Your task to perform on an android device: change notification settings in the gmail app Image 0: 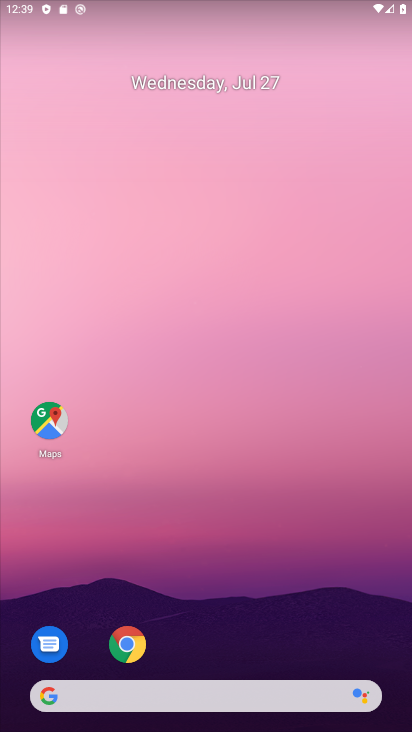
Step 0: drag from (223, 665) to (249, 52)
Your task to perform on an android device: change notification settings in the gmail app Image 1: 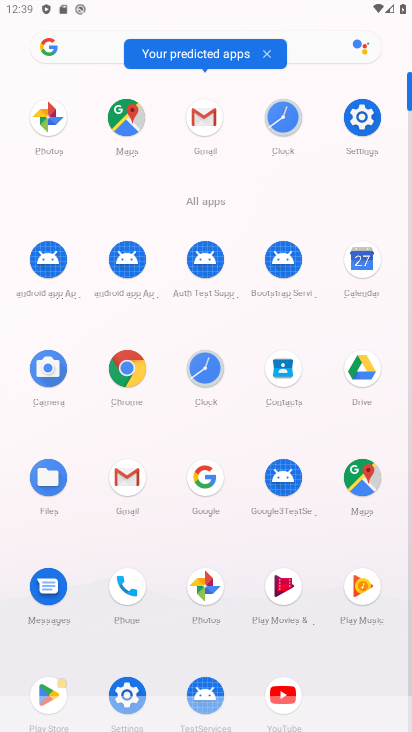
Step 1: click (199, 123)
Your task to perform on an android device: change notification settings in the gmail app Image 2: 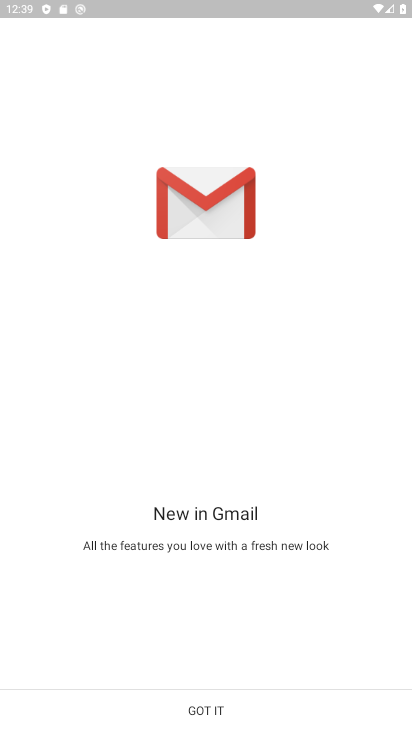
Step 2: click (209, 715)
Your task to perform on an android device: change notification settings in the gmail app Image 3: 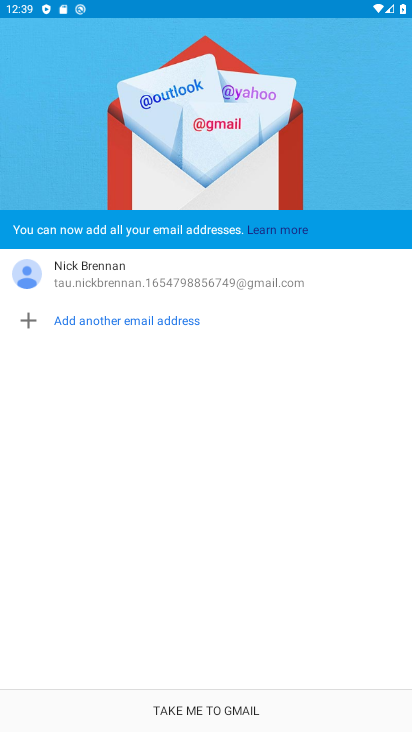
Step 3: click (181, 706)
Your task to perform on an android device: change notification settings in the gmail app Image 4: 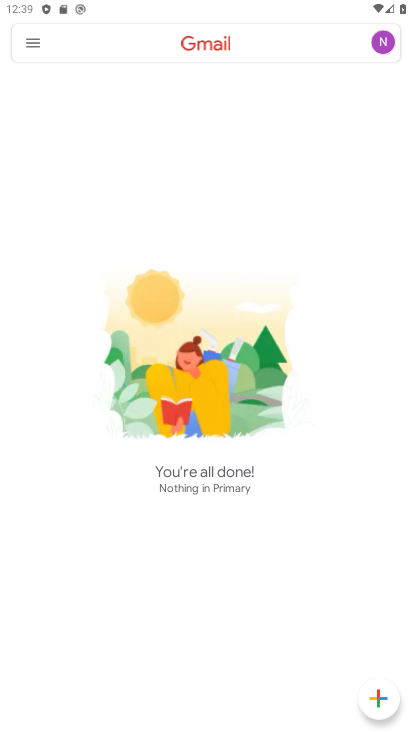
Step 4: click (29, 45)
Your task to perform on an android device: change notification settings in the gmail app Image 5: 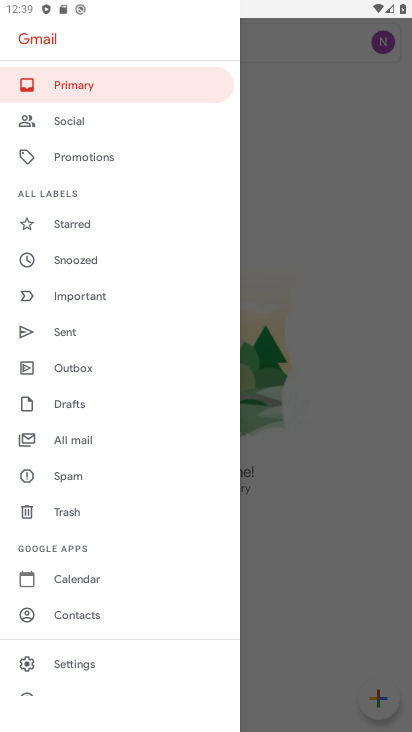
Step 5: click (85, 670)
Your task to perform on an android device: change notification settings in the gmail app Image 6: 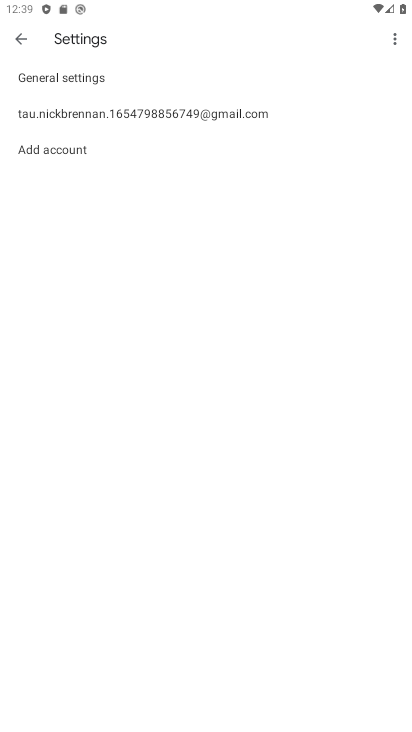
Step 6: click (60, 116)
Your task to perform on an android device: change notification settings in the gmail app Image 7: 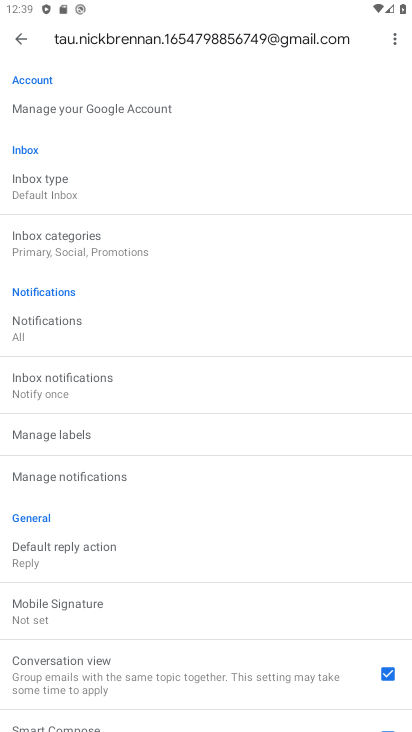
Step 7: click (40, 317)
Your task to perform on an android device: change notification settings in the gmail app Image 8: 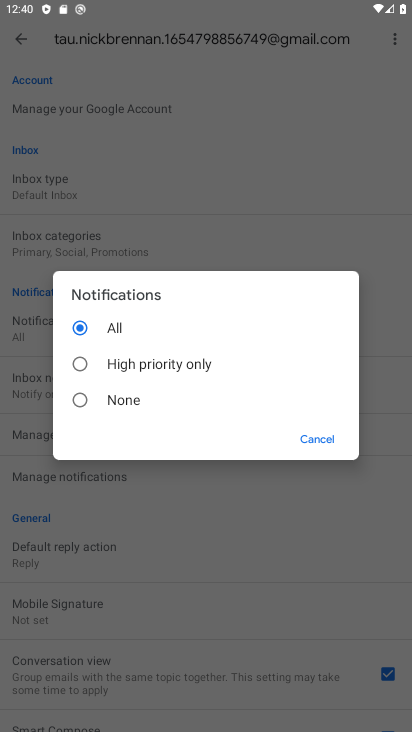
Step 8: click (111, 372)
Your task to perform on an android device: change notification settings in the gmail app Image 9: 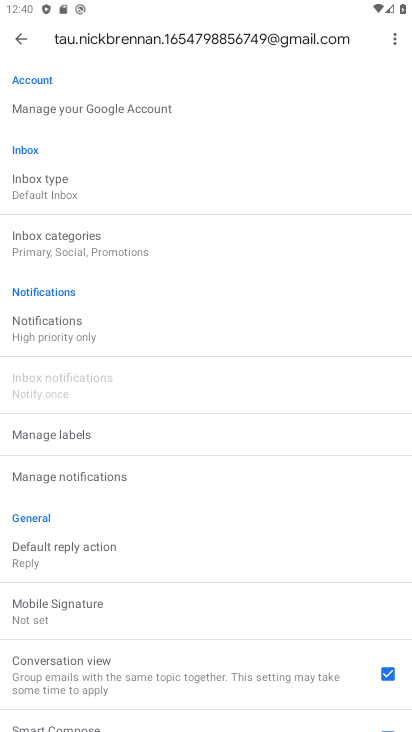
Step 9: task complete